Your task to perform on an android device: When is my next appointment? Image 0: 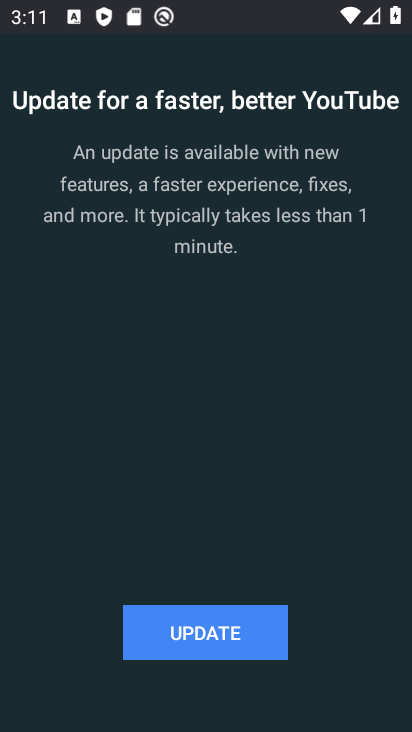
Step 0: press home button
Your task to perform on an android device: When is my next appointment? Image 1: 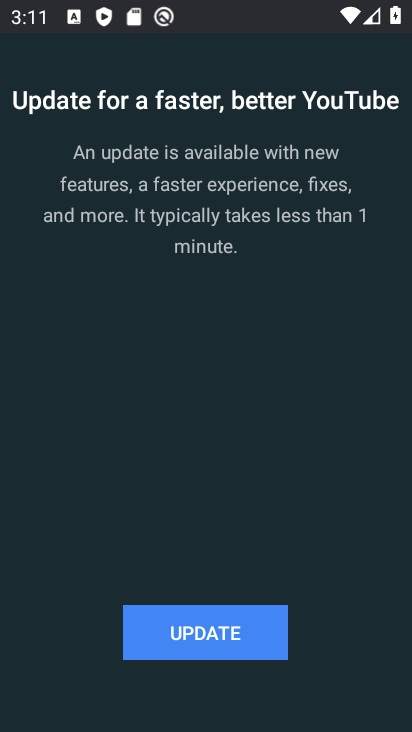
Step 1: press home button
Your task to perform on an android device: When is my next appointment? Image 2: 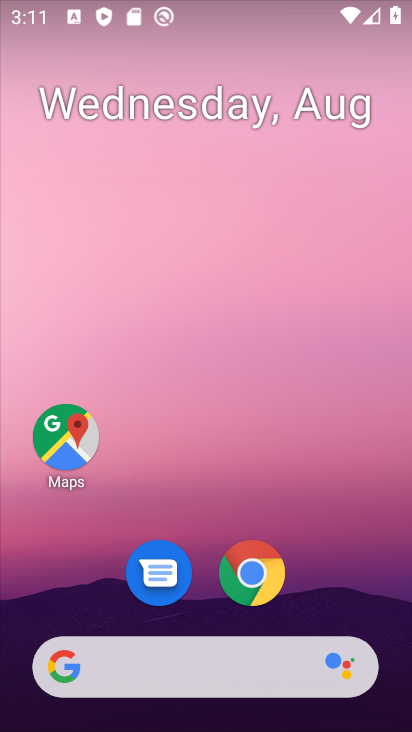
Step 2: drag from (261, 489) to (286, 0)
Your task to perform on an android device: When is my next appointment? Image 3: 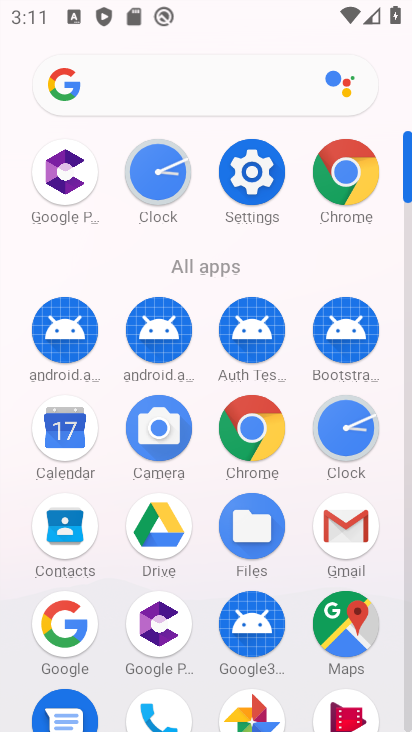
Step 3: click (74, 426)
Your task to perform on an android device: When is my next appointment? Image 4: 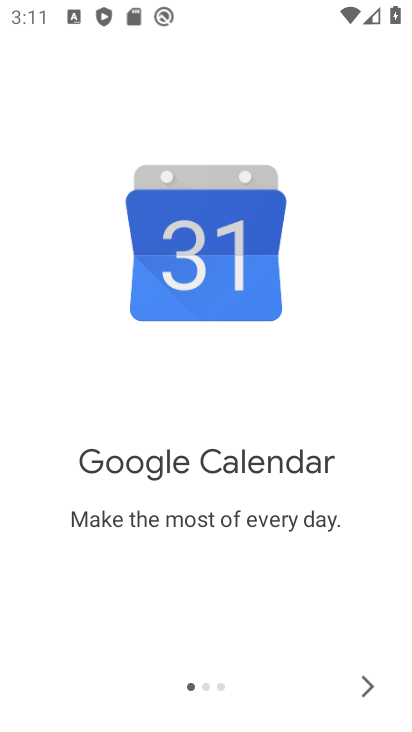
Step 4: click (366, 683)
Your task to perform on an android device: When is my next appointment? Image 5: 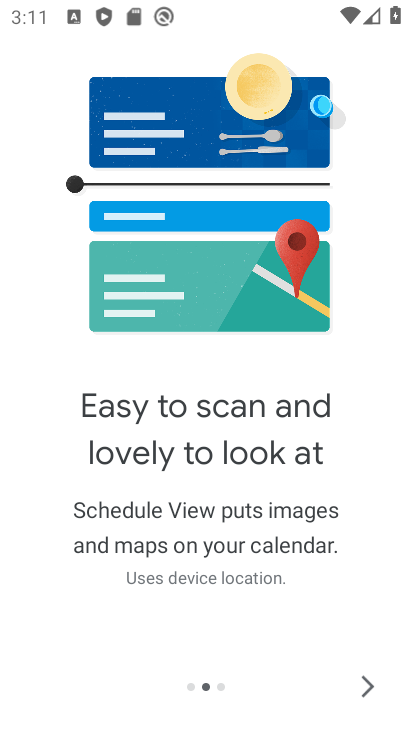
Step 5: click (366, 681)
Your task to perform on an android device: When is my next appointment? Image 6: 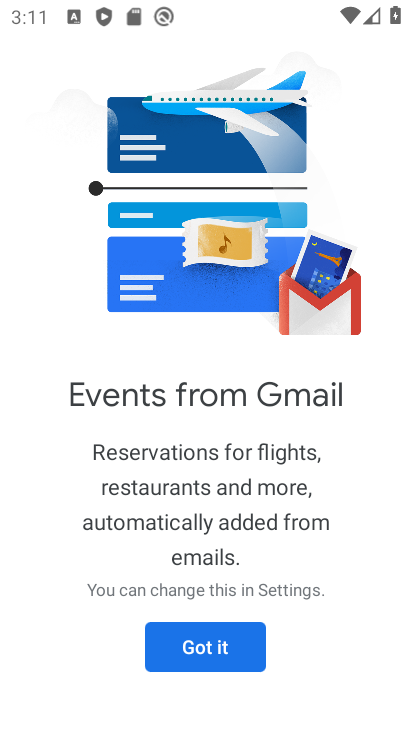
Step 6: click (241, 639)
Your task to perform on an android device: When is my next appointment? Image 7: 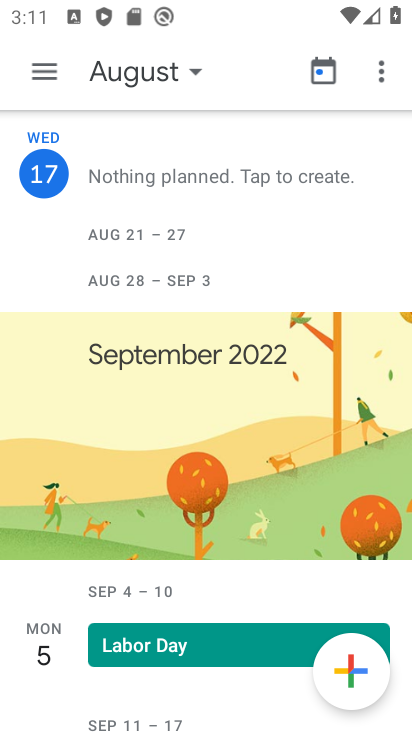
Step 7: task complete